Your task to perform on an android device: all mails in gmail Image 0: 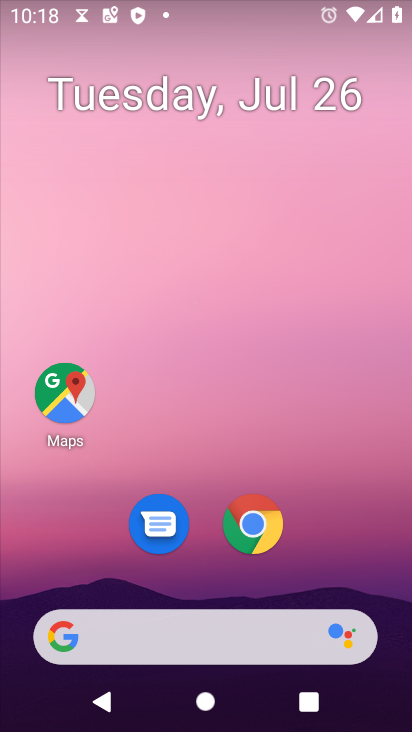
Step 0: press home button
Your task to perform on an android device: all mails in gmail Image 1: 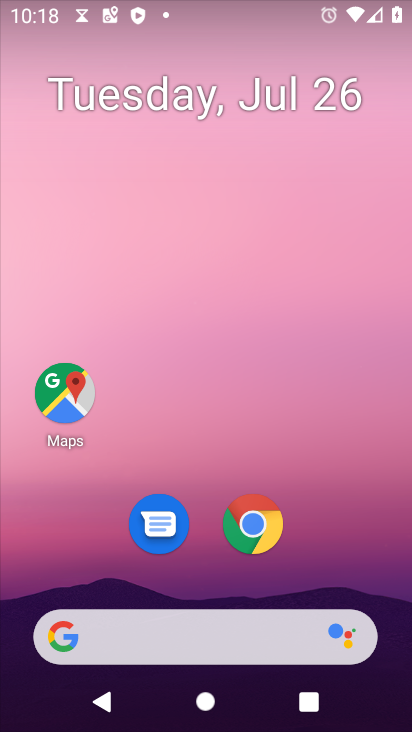
Step 1: drag from (231, 649) to (361, 74)
Your task to perform on an android device: all mails in gmail Image 2: 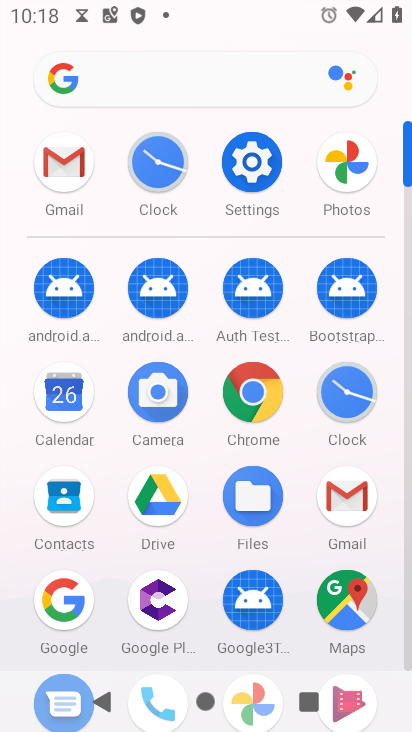
Step 2: click (59, 167)
Your task to perform on an android device: all mails in gmail Image 3: 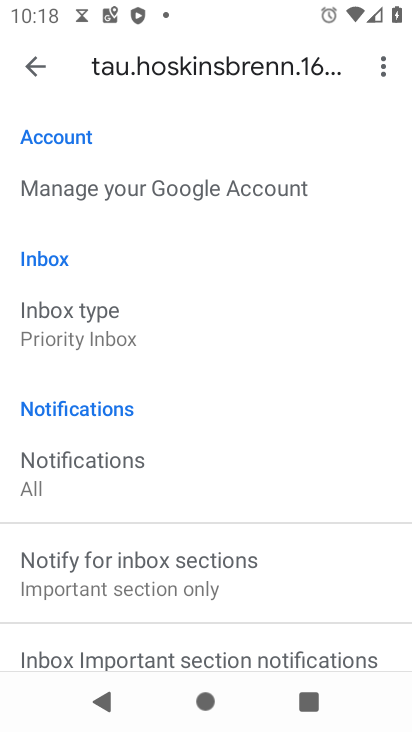
Step 3: click (24, 72)
Your task to perform on an android device: all mails in gmail Image 4: 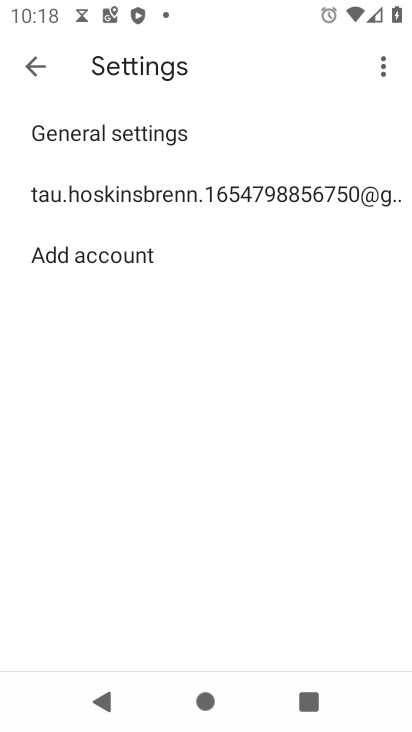
Step 4: click (38, 70)
Your task to perform on an android device: all mails in gmail Image 5: 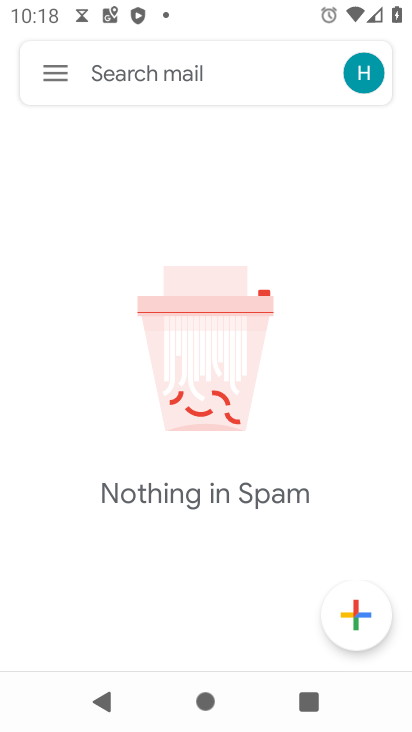
Step 5: click (55, 68)
Your task to perform on an android device: all mails in gmail Image 6: 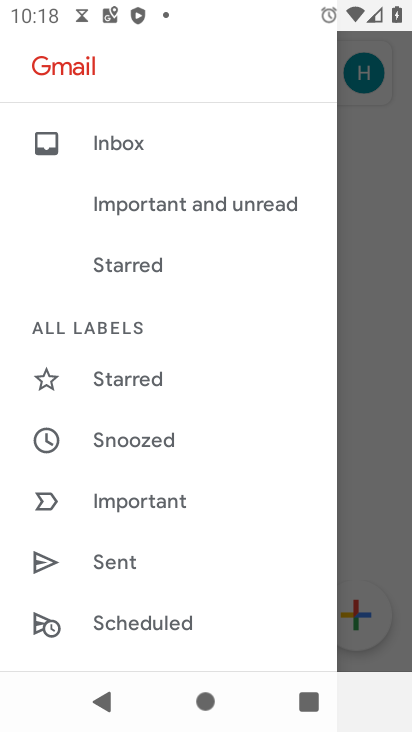
Step 6: drag from (158, 583) to (257, 135)
Your task to perform on an android device: all mails in gmail Image 7: 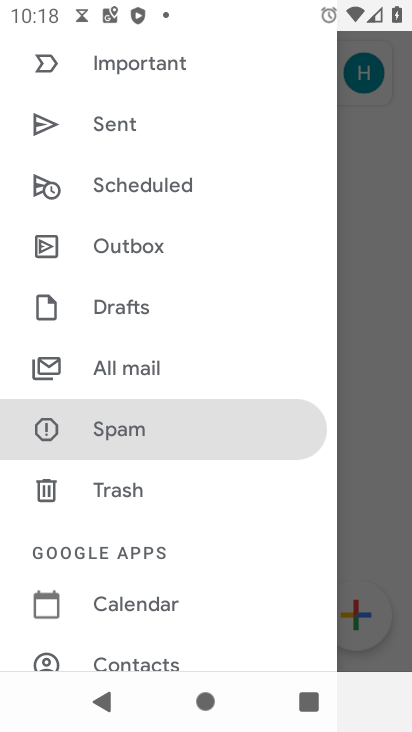
Step 7: click (137, 360)
Your task to perform on an android device: all mails in gmail Image 8: 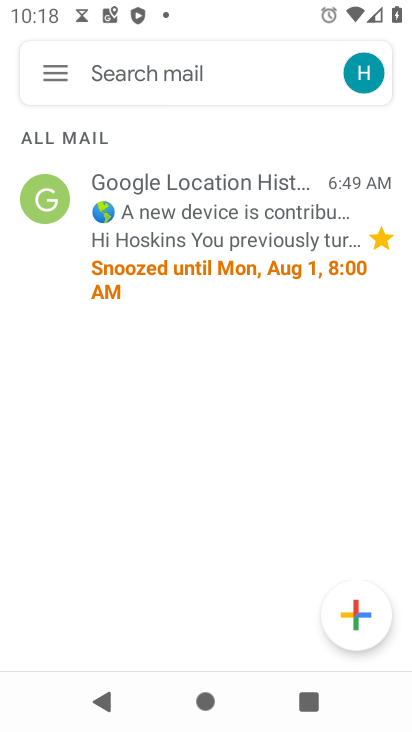
Step 8: task complete